Your task to perform on an android device: turn on priority inbox in the gmail app Image 0: 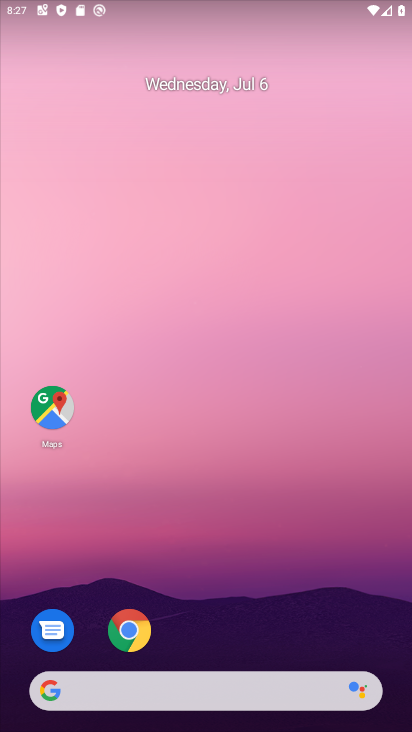
Step 0: drag from (399, 704) to (345, 225)
Your task to perform on an android device: turn on priority inbox in the gmail app Image 1: 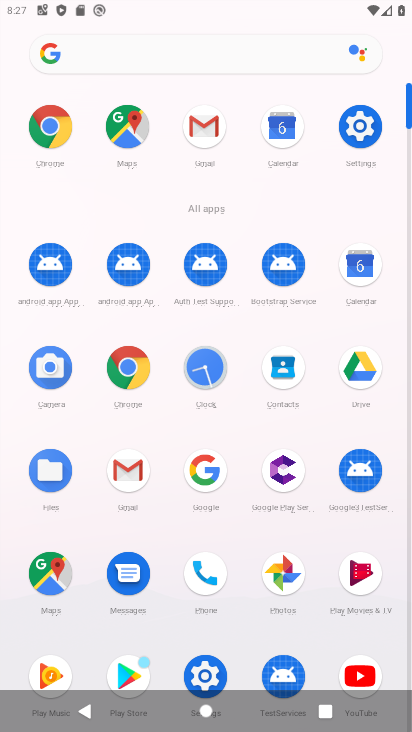
Step 1: click (207, 136)
Your task to perform on an android device: turn on priority inbox in the gmail app Image 2: 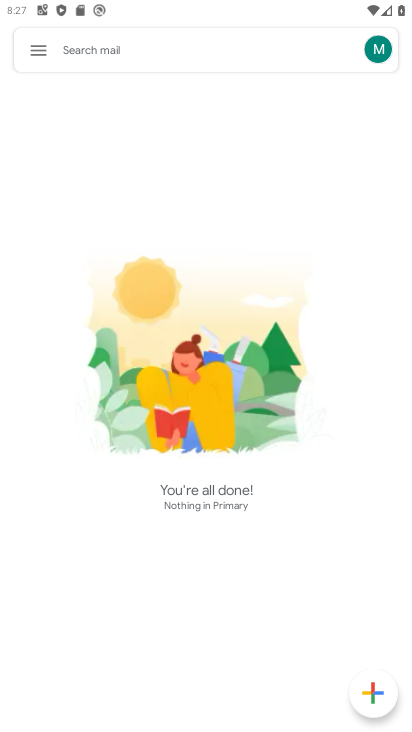
Step 2: click (39, 56)
Your task to perform on an android device: turn on priority inbox in the gmail app Image 3: 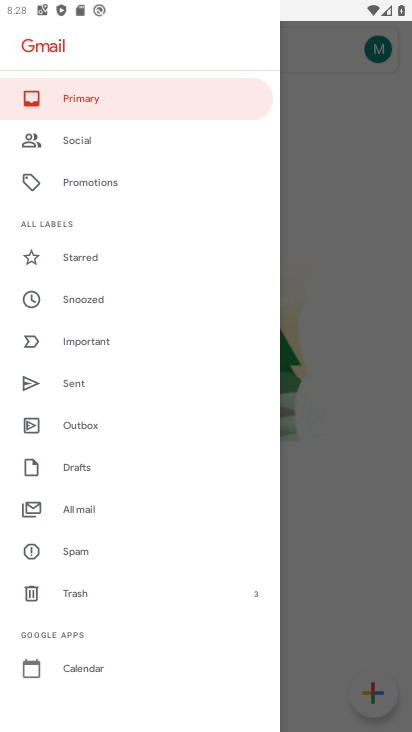
Step 3: drag from (150, 538) to (150, 398)
Your task to perform on an android device: turn on priority inbox in the gmail app Image 4: 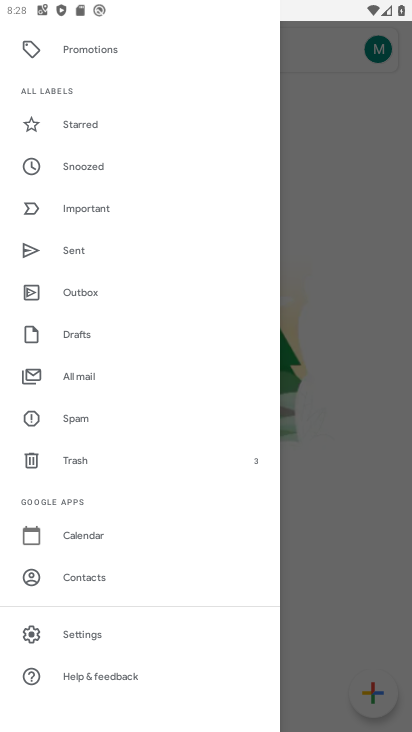
Step 4: click (75, 635)
Your task to perform on an android device: turn on priority inbox in the gmail app Image 5: 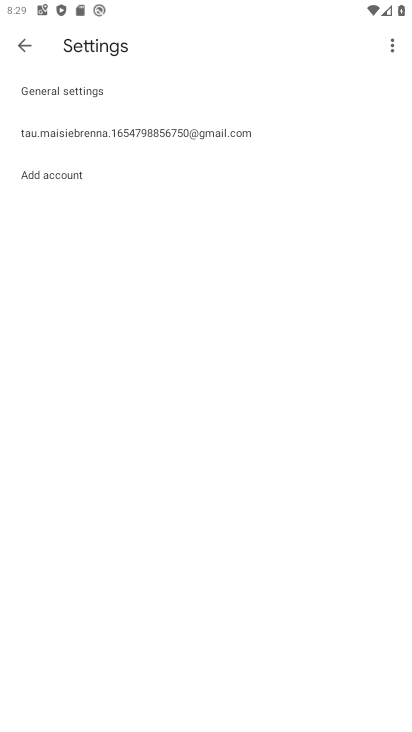
Step 5: click (49, 132)
Your task to perform on an android device: turn on priority inbox in the gmail app Image 6: 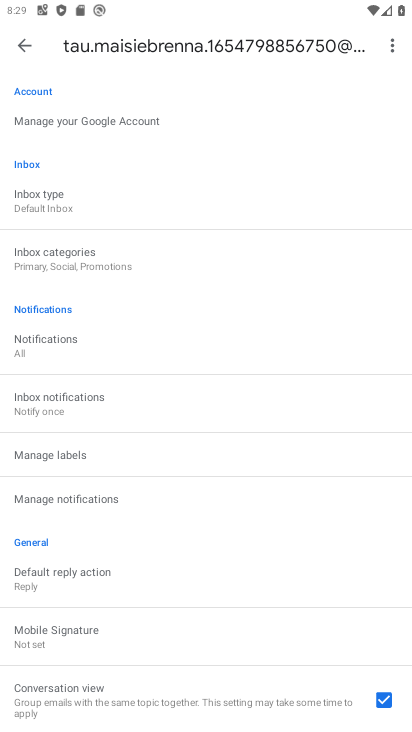
Step 6: click (26, 194)
Your task to perform on an android device: turn on priority inbox in the gmail app Image 7: 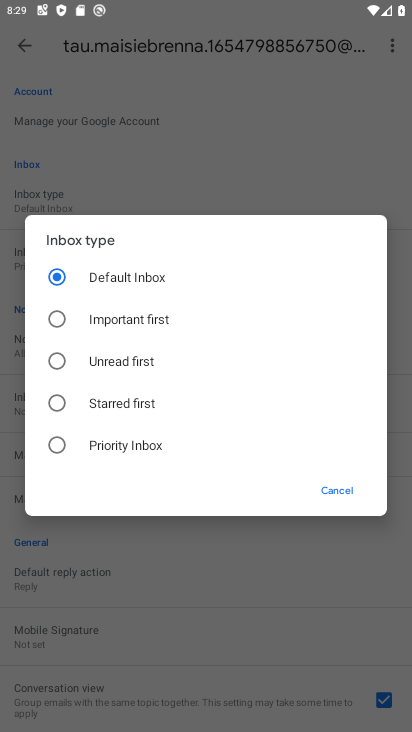
Step 7: click (49, 443)
Your task to perform on an android device: turn on priority inbox in the gmail app Image 8: 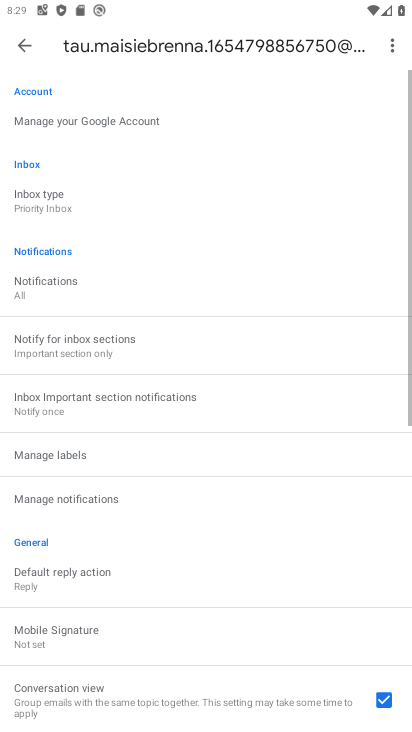
Step 8: task complete